Your task to perform on an android device: Install the Reddit app Image 0: 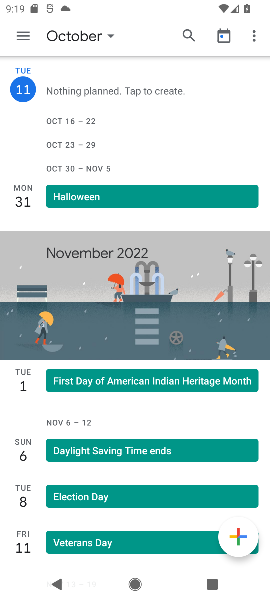
Step 0: press home button
Your task to perform on an android device: Install the Reddit app Image 1: 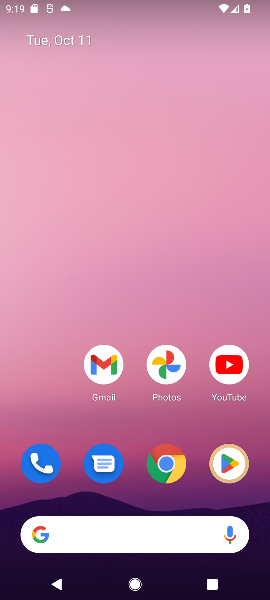
Step 1: drag from (163, 513) to (97, 277)
Your task to perform on an android device: Install the Reddit app Image 2: 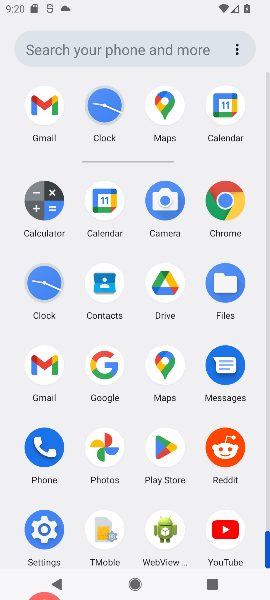
Step 2: click (167, 443)
Your task to perform on an android device: Install the Reddit app Image 3: 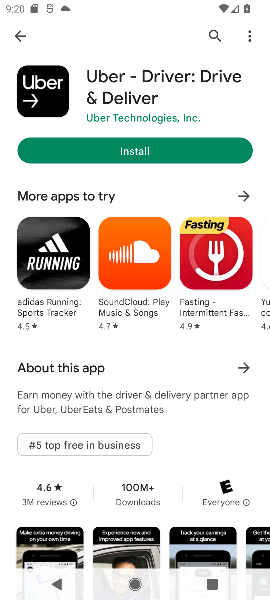
Step 3: click (21, 34)
Your task to perform on an android device: Install the Reddit app Image 4: 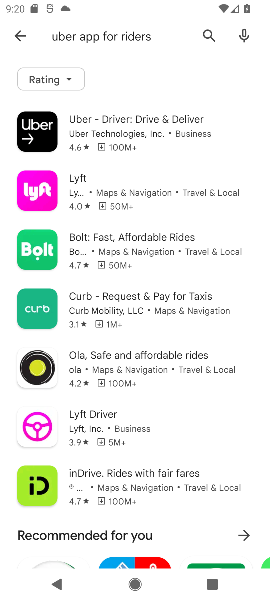
Step 4: click (206, 32)
Your task to perform on an android device: Install the Reddit app Image 5: 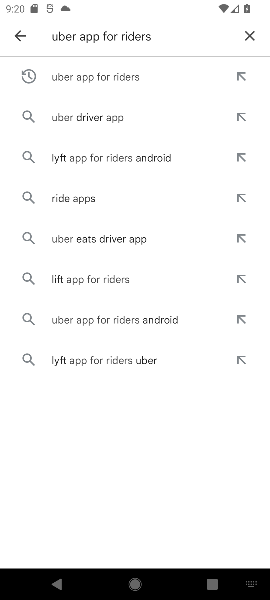
Step 5: click (258, 34)
Your task to perform on an android device: Install the Reddit app Image 6: 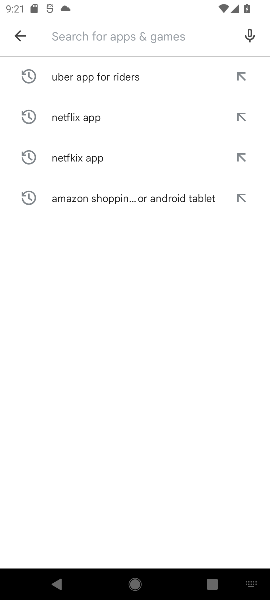
Step 6: click (154, 27)
Your task to perform on an android device: Install the Reddit app Image 7: 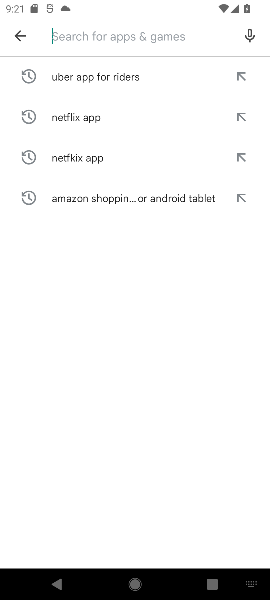
Step 7: type "Reddit app "
Your task to perform on an android device: Install the Reddit app Image 8: 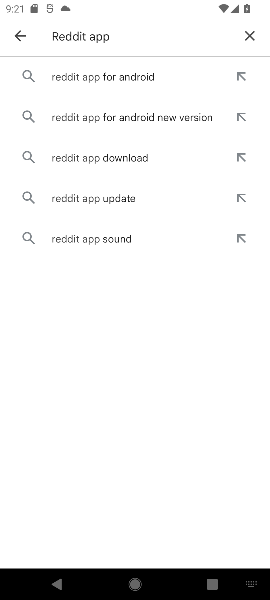
Step 8: click (73, 77)
Your task to perform on an android device: Install the Reddit app Image 9: 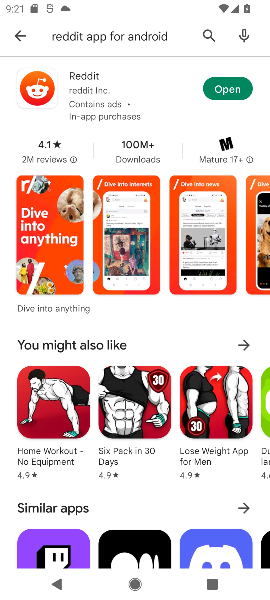
Step 9: click (236, 95)
Your task to perform on an android device: Install the Reddit app Image 10: 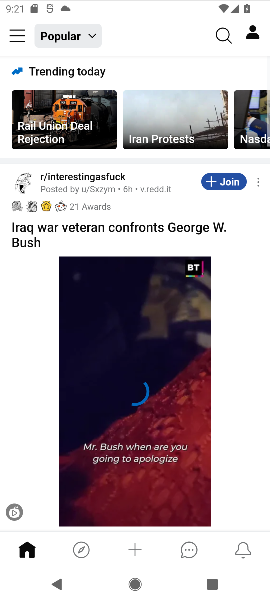
Step 10: task complete